Your task to perform on an android device: What's the weather going to be tomorrow? Image 0: 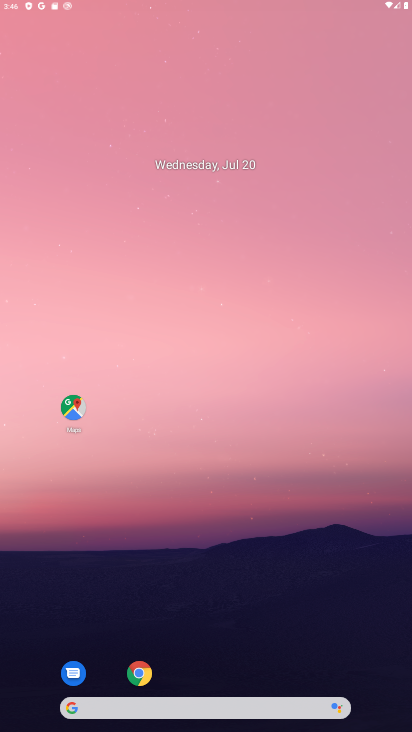
Step 0: press home button
Your task to perform on an android device: What's the weather going to be tomorrow? Image 1: 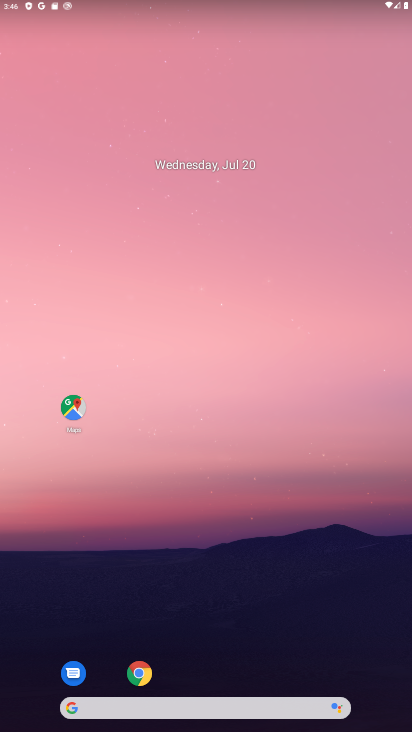
Step 1: click (72, 707)
Your task to perform on an android device: What's the weather going to be tomorrow? Image 2: 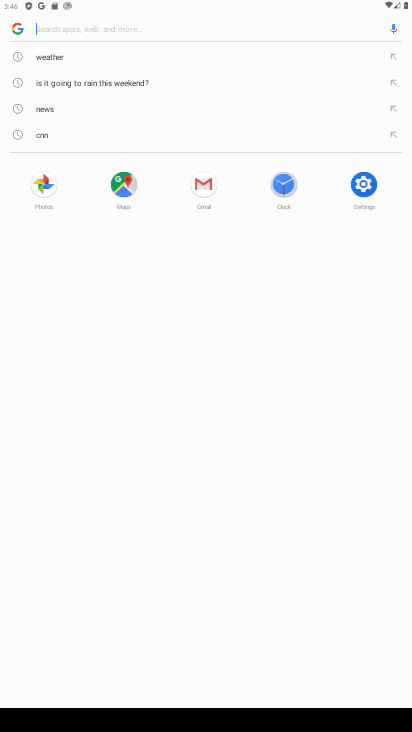
Step 2: type "What's the weather going to be tomorrow"
Your task to perform on an android device: What's the weather going to be tomorrow? Image 3: 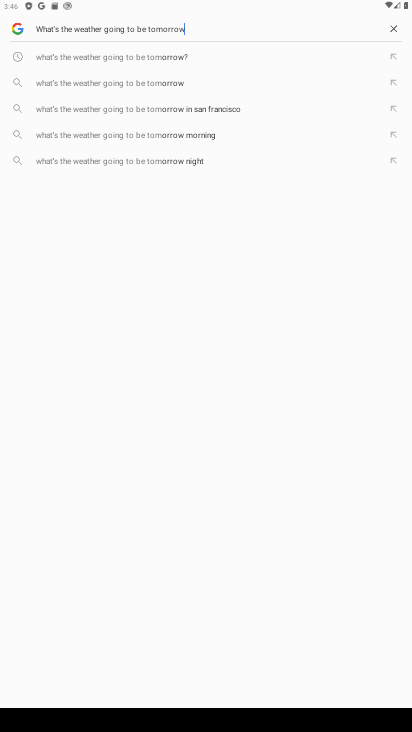
Step 3: press enter
Your task to perform on an android device: What's the weather going to be tomorrow? Image 4: 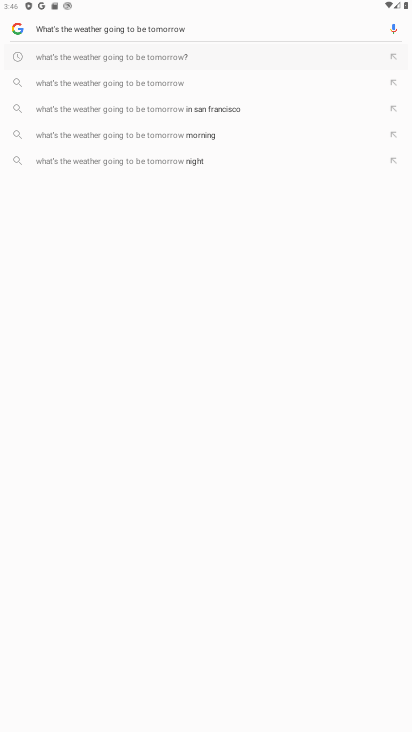
Step 4: press enter
Your task to perform on an android device: What's the weather going to be tomorrow? Image 5: 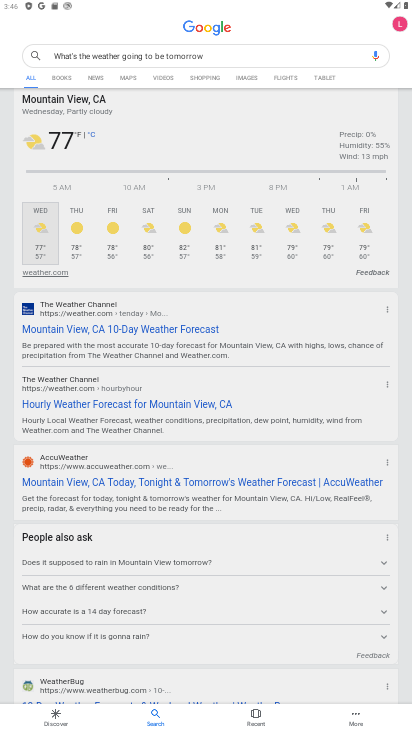
Step 5: task complete